Your task to perform on an android device: change timer sound Image 0: 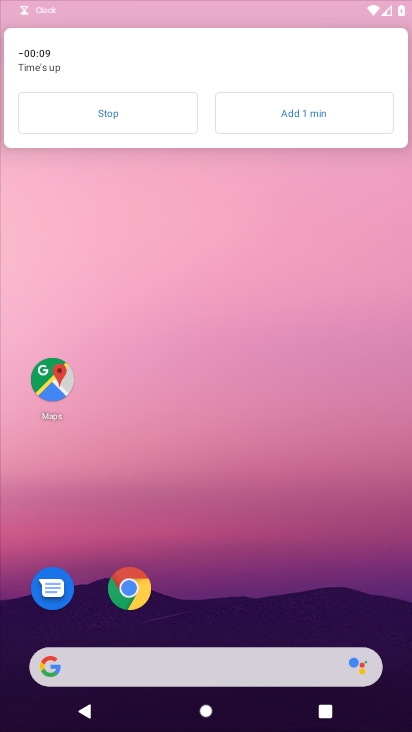
Step 0: click (126, 105)
Your task to perform on an android device: change timer sound Image 1: 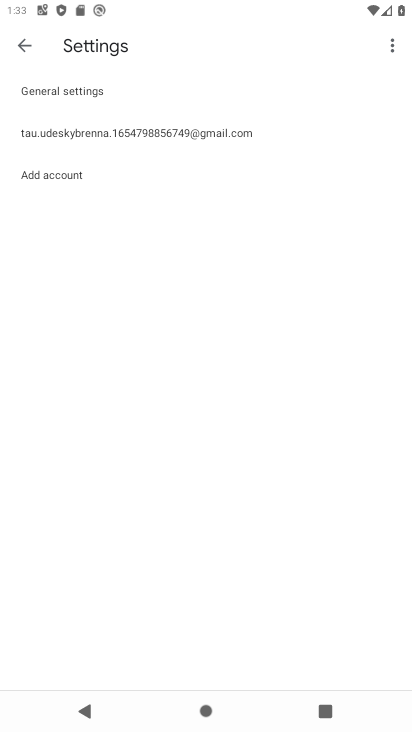
Step 1: press home button
Your task to perform on an android device: change timer sound Image 2: 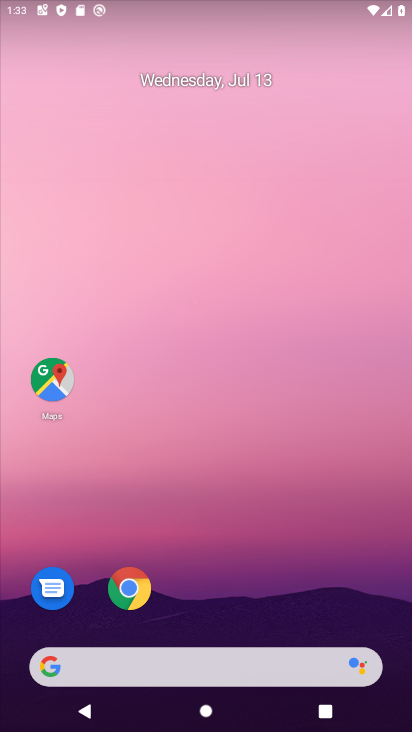
Step 2: drag from (151, 654) to (132, 231)
Your task to perform on an android device: change timer sound Image 3: 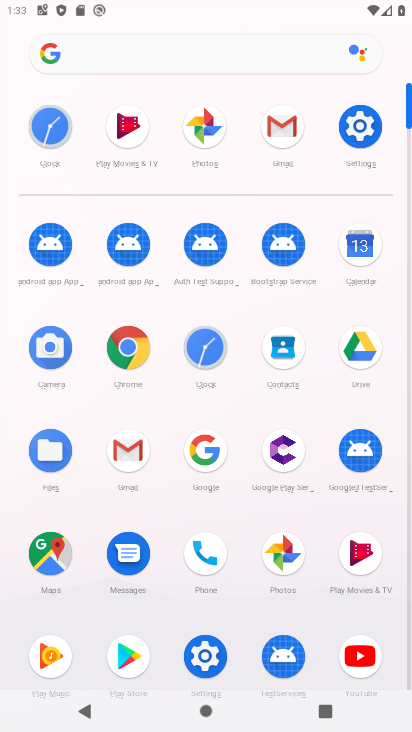
Step 3: click (195, 346)
Your task to perform on an android device: change timer sound Image 4: 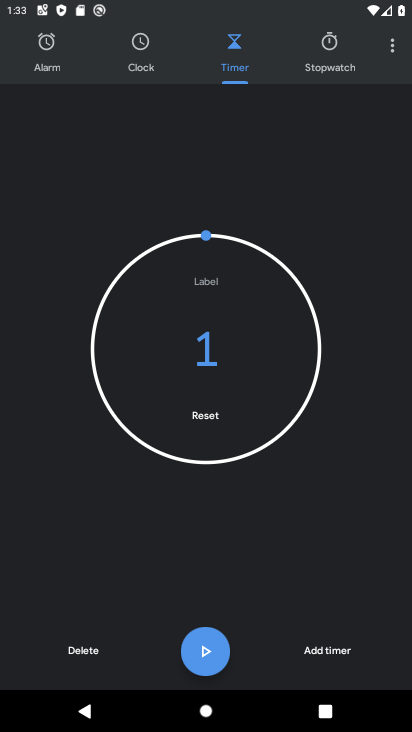
Step 4: click (393, 59)
Your task to perform on an android device: change timer sound Image 5: 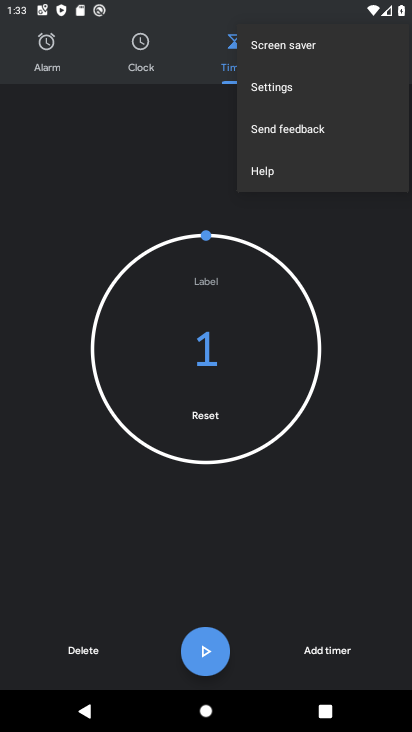
Step 5: click (266, 93)
Your task to perform on an android device: change timer sound Image 6: 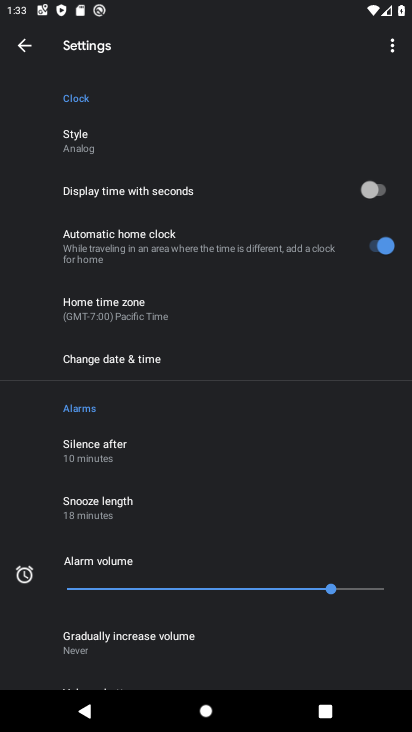
Step 6: drag from (107, 649) to (113, 371)
Your task to perform on an android device: change timer sound Image 7: 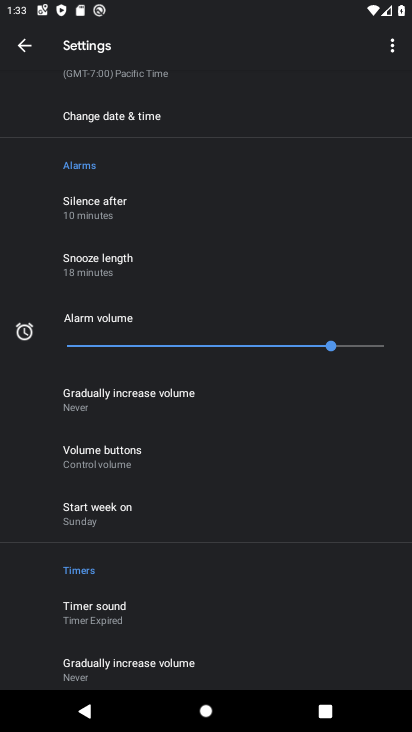
Step 7: click (85, 625)
Your task to perform on an android device: change timer sound Image 8: 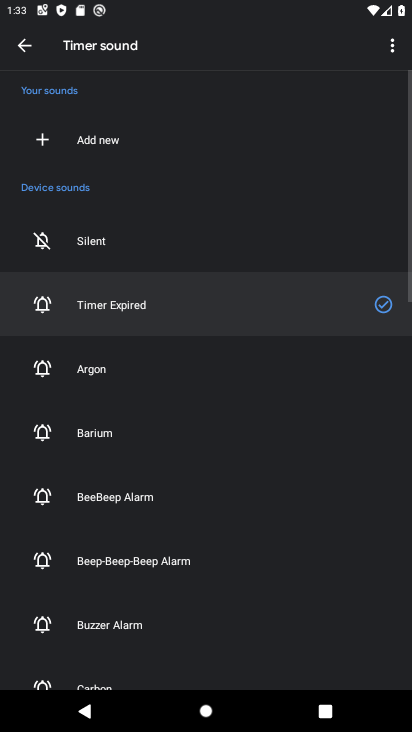
Step 8: click (104, 378)
Your task to perform on an android device: change timer sound Image 9: 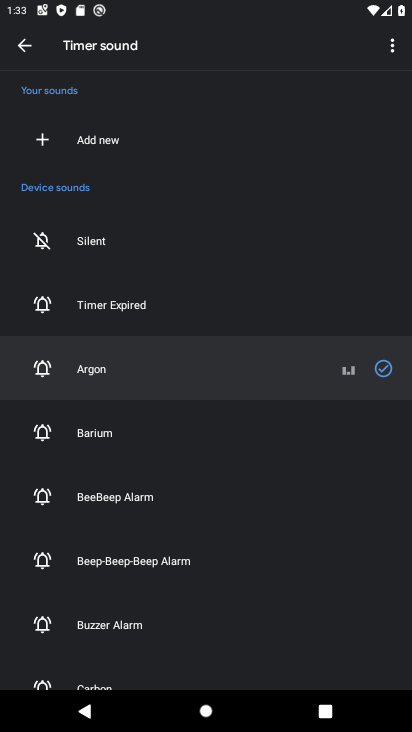
Step 9: task complete